Your task to perform on an android device: Open internet settings Image 0: 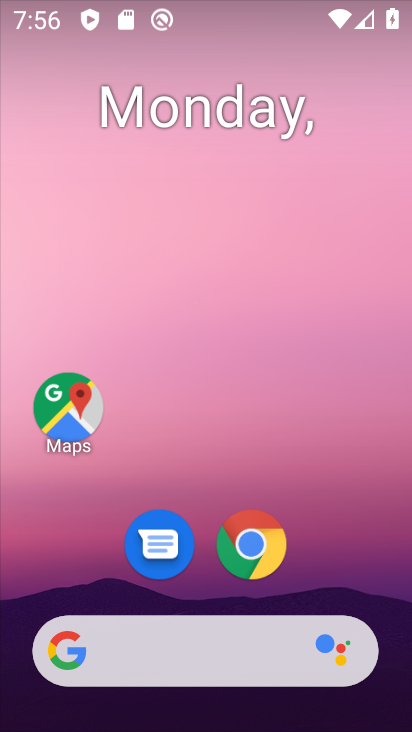
Step 0: drag from (207, 606) to (162, 6)
Your task to perform on an android device: Open internet settings Image 1: 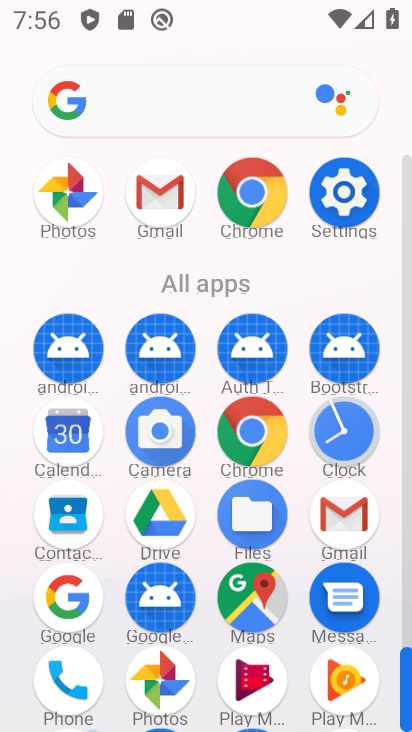
Step 1: click (360, 189)
Your task to perform on an android device: Open internet settings Image 2: 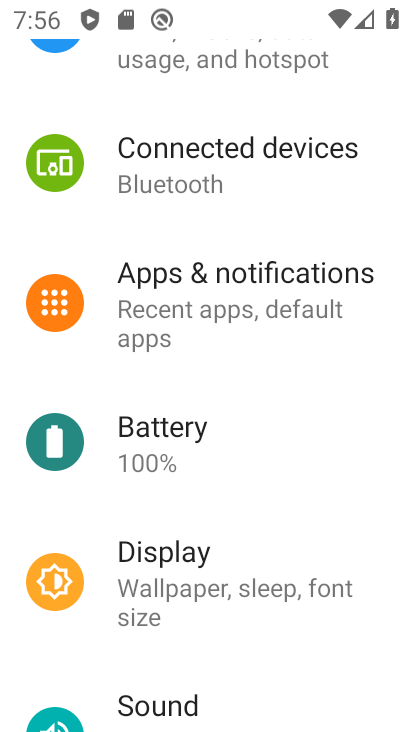
Step 2: drag from (327, 165) to (278, 546)
Your task to perform on an android device: Open internet settings Image 3: 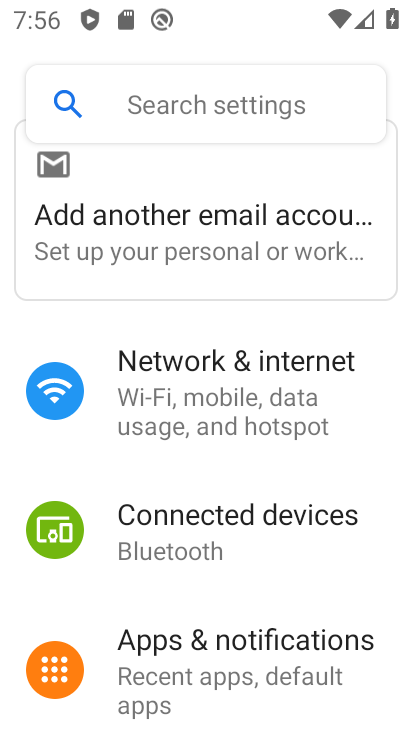
Step 3: click (241, 444)
Your task to perform on an android device: Open internet settings Image 4: 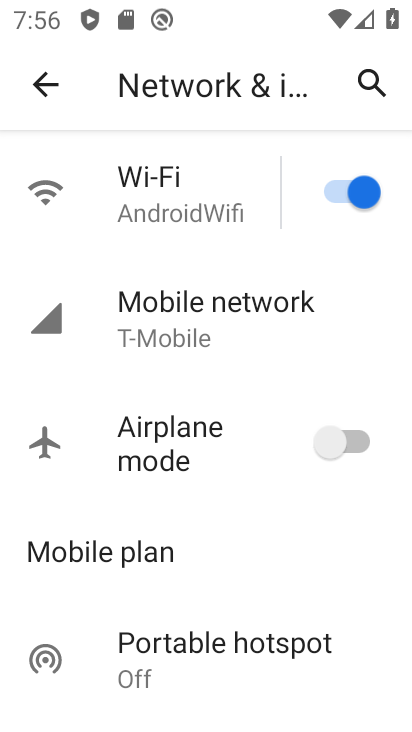
Step 4: click (182, 344)
Your task to perform on an android device: Open internet settings Image 5: 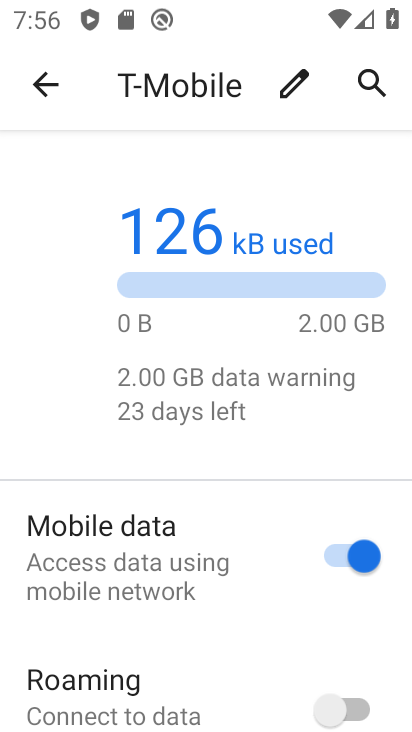
Step 5: task complete